Your task to perform on an android device: turn off location Image 0: 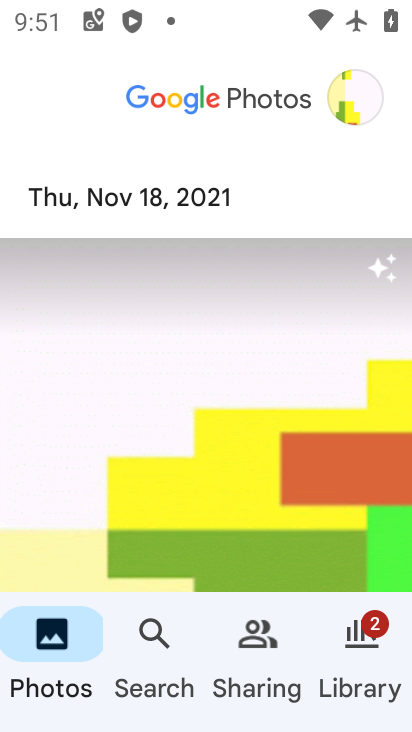
Step 0: press home button
Your task to perform on an android device: turn off location Image 1: 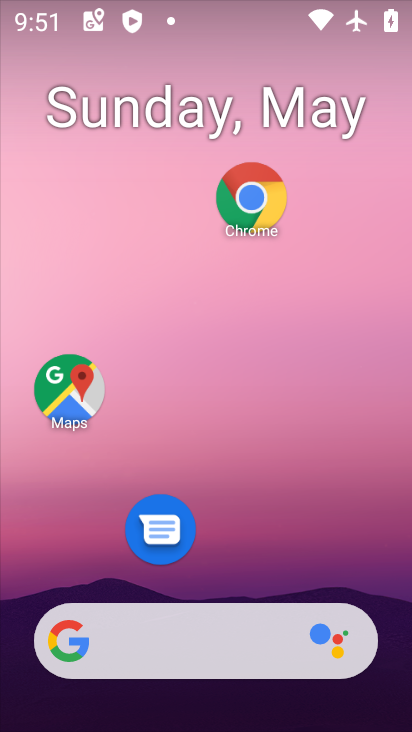
Step 1: drag from (304, 564) to (277, 60)
Your task to perform on an android device: turn off location Image 2: 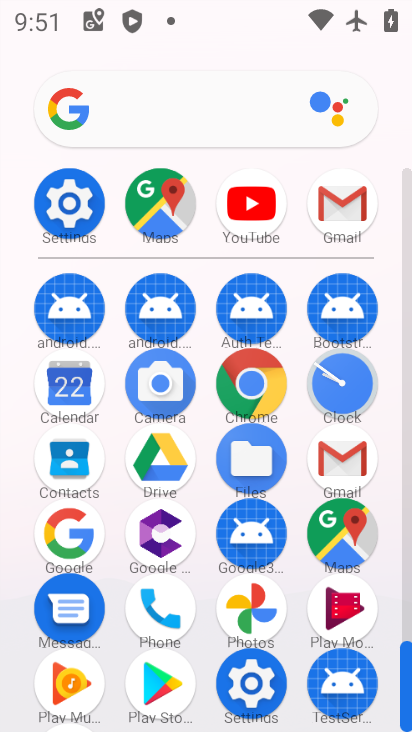
Step 2: click (67, 197)
Your task to perform on an android device: turn off location Image 3: 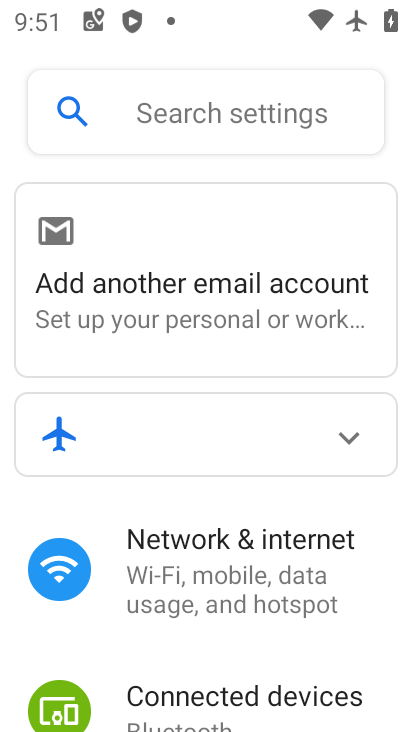
Step 3: drag from (156, 635) to (180, 266)
Your task to perform on an android device: turn off location Image 4: 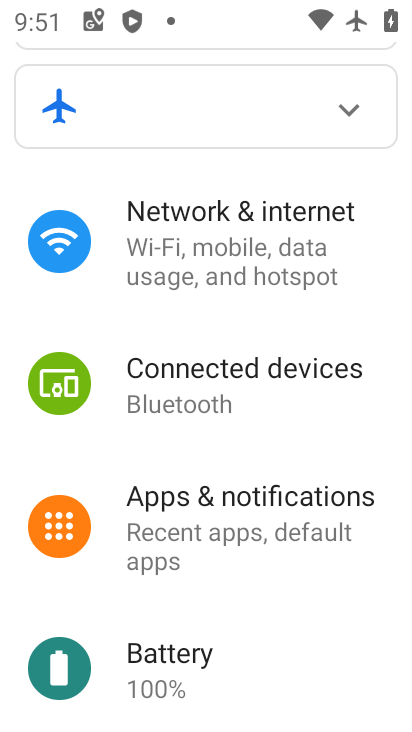
Step 4: drag from (173, 632) to (213, 305)
Your task to perform on an android device: turn off location Image 5: 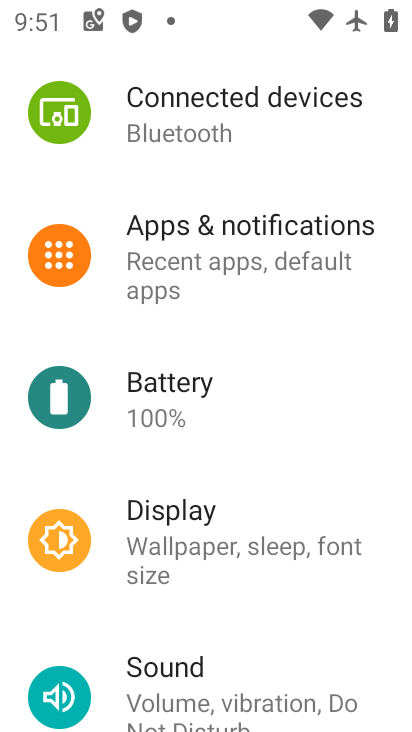
Step 5: drag from (210, 618) to (248, 340)
Your task to perform on an android device: turn off location Image 6: 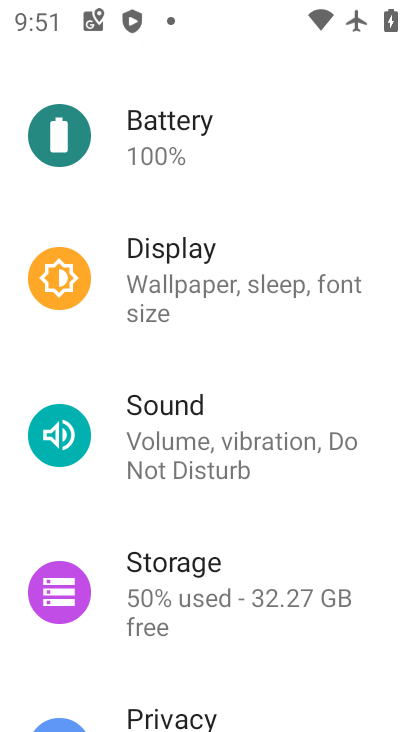
Step 6: drag from (222, 659) to (258, 423)
Your task to perform on an android device: turn off location Image 7: 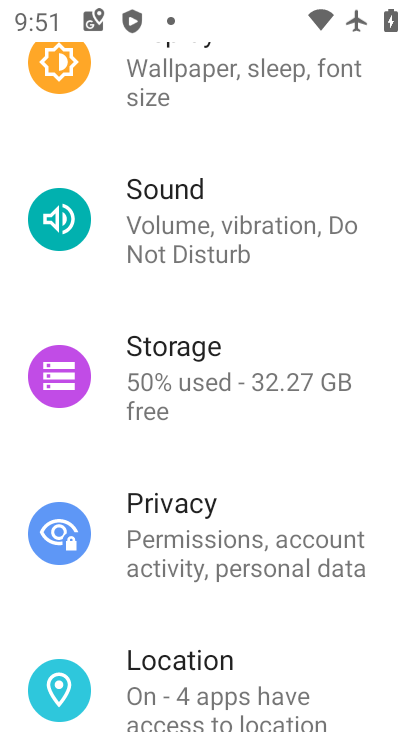
Step 7: click (223, 682)
Your task to perform on an android device: turn off location Image 8: 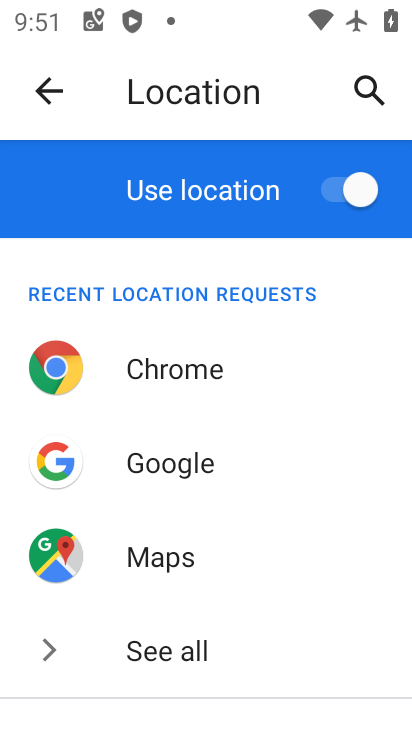
Step 8: click (316, 207)
Your task to perform on an android device: turn off location Image 9: 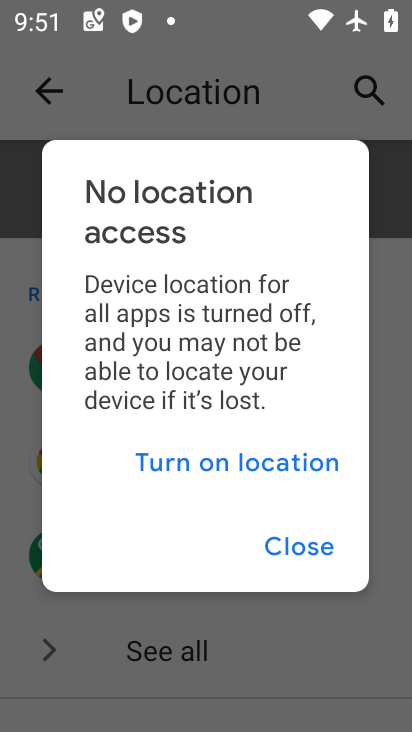
Step 9: task complete